Your task to perform on an android device: What is the news today? Image 0: 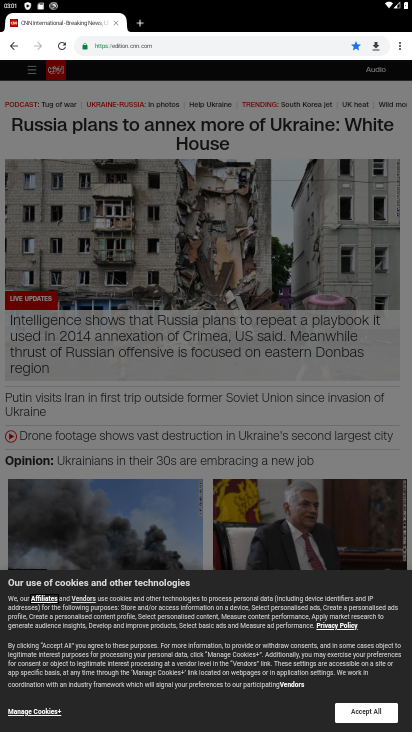
Step 0: press home button
Your task to perform on an android device: What is the news today? Image 1: 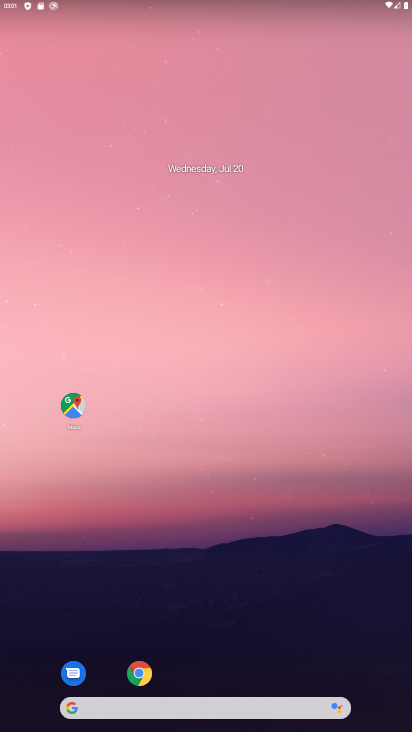
Step 1: drag from (302, 659) to (305, 275)
Your task to perform on an android device: What is the news today? Image 2: 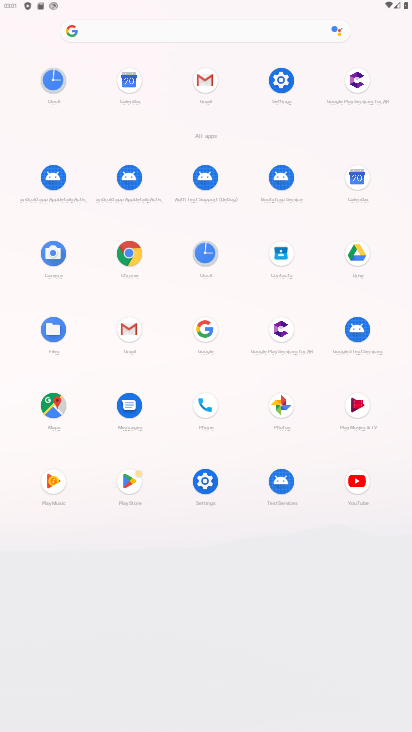
Step 2: click (135, 255)
Your task to perform on an android device: What is the news today? Image 3: 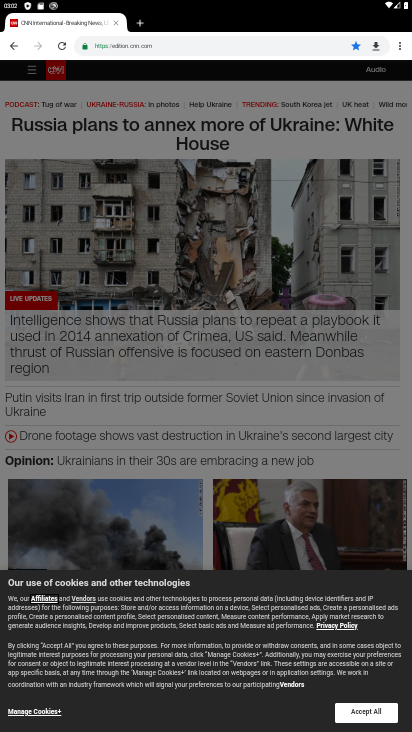
Step 3: click (163, 53)
Your task to perform on an android device: What is the news today? Image 4: 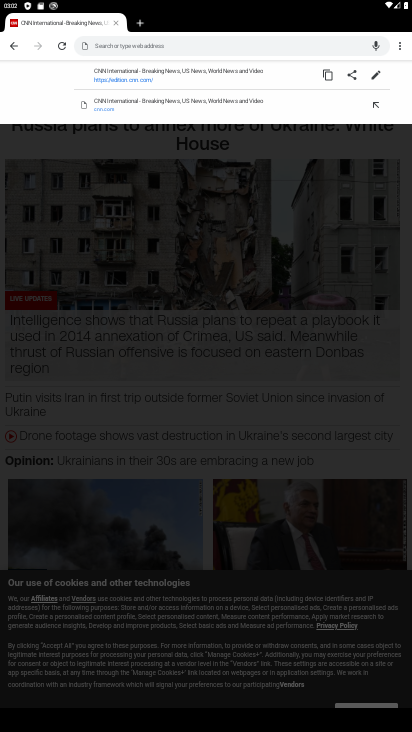
Step 4: type "What is the news today?"
Your task to perform on an android device: What is the news today? Image 5: 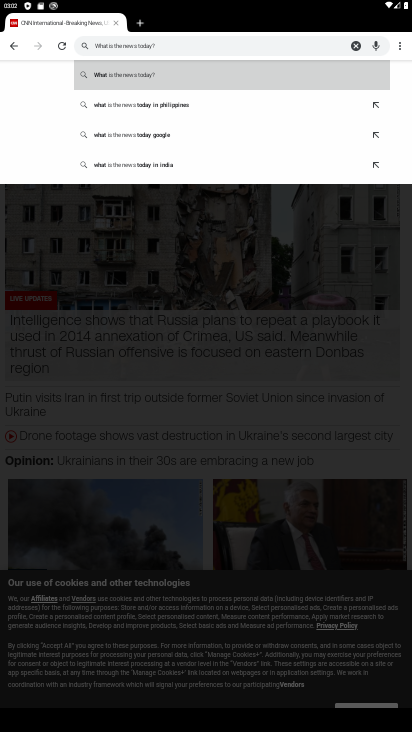
Step 5: click (206, 82)
Your task to perform on an android device: What is the news today? Image 6: 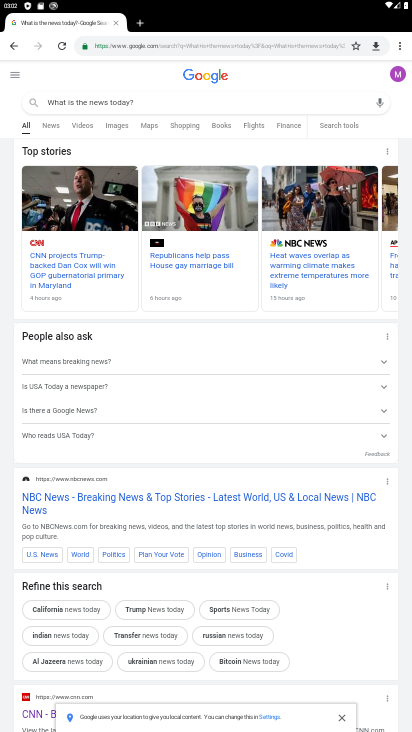
Step 6: task complete